Your task to perform on an android device: Go to notification settings Image 0: 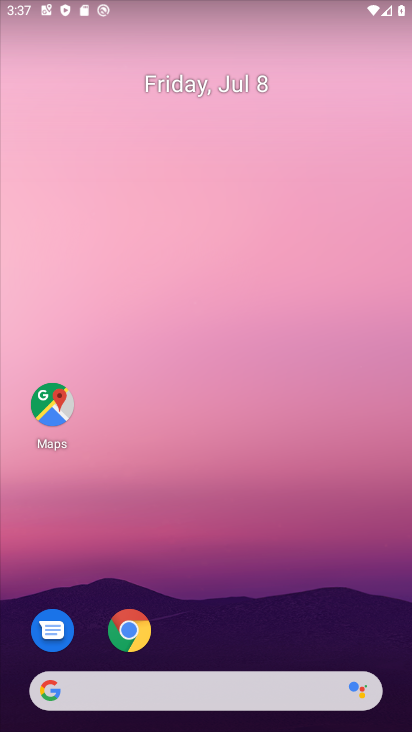
Step 0: drag from (218, 586) to (195, 100)
Your task to perform on an android device: Go to notification settings Image 1: 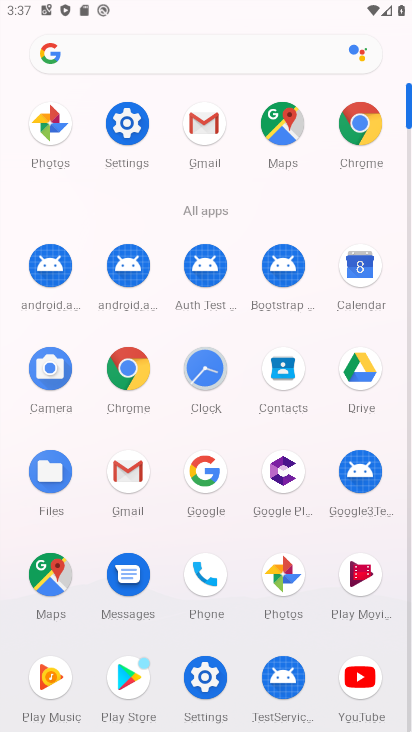
Step 1: click (126, 125)
Your task to perform on an android device: Go to notification settings Image 2: 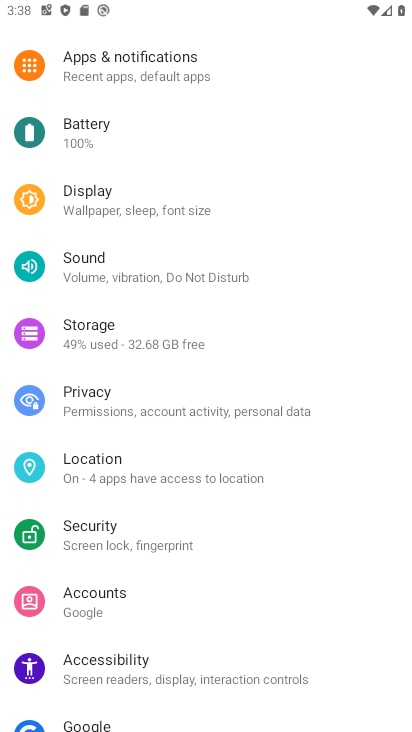
Step 2: click (143, 60)
Your task to perform on an android device: Go to notification settings Image 3: 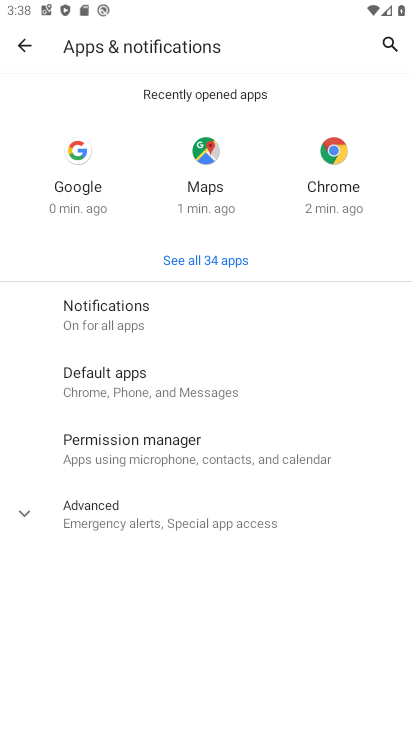
Step 3: click (138, 320)
Your task to perform on an android device: Go to notification settings Image 4: 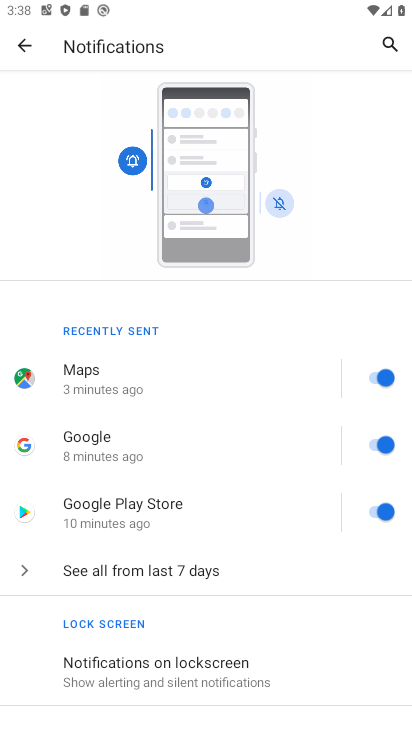
Step 4: task complete